Your task to perform on an android device: open app "File Manager" (install if not already installed) Image 0: 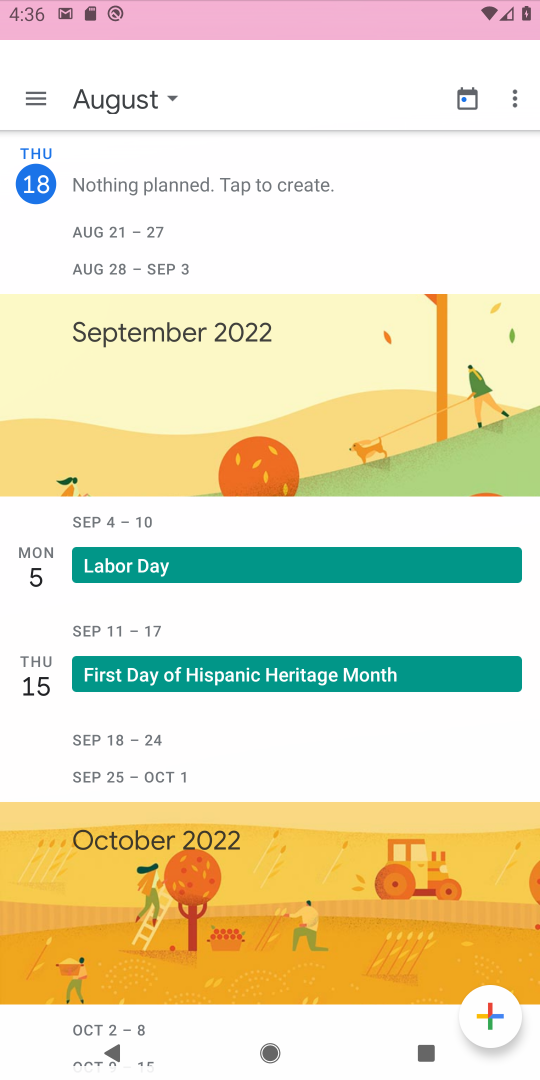
Step 0: press home button
Your task to perform on an android device: open app "File Manager" (install if not already installed) Image 1: 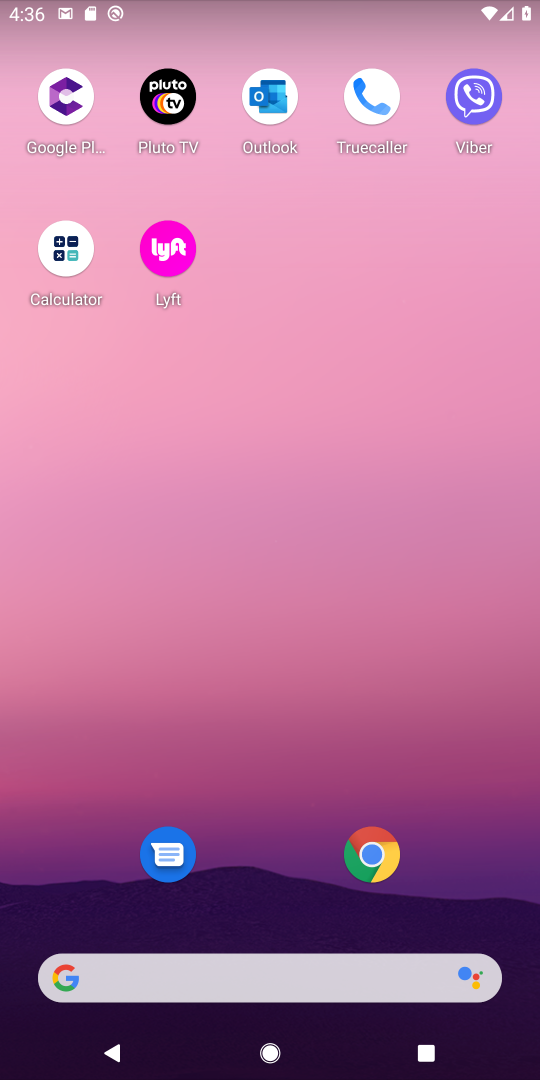
Step 1: drag from (266, 924) to (389, 18)
Your task to perform on an android device: open app "File Manager" (install if not already installed) Image 2: 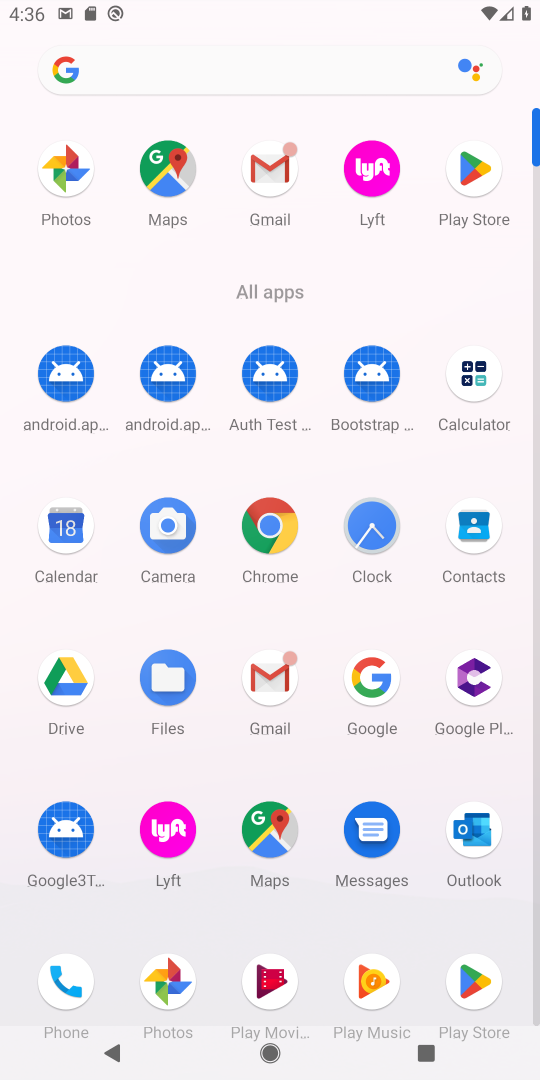
Step 2: click (460, 205)
Your task to perform on an android device: open app "File Manager" (install if not already installed) Image 3: 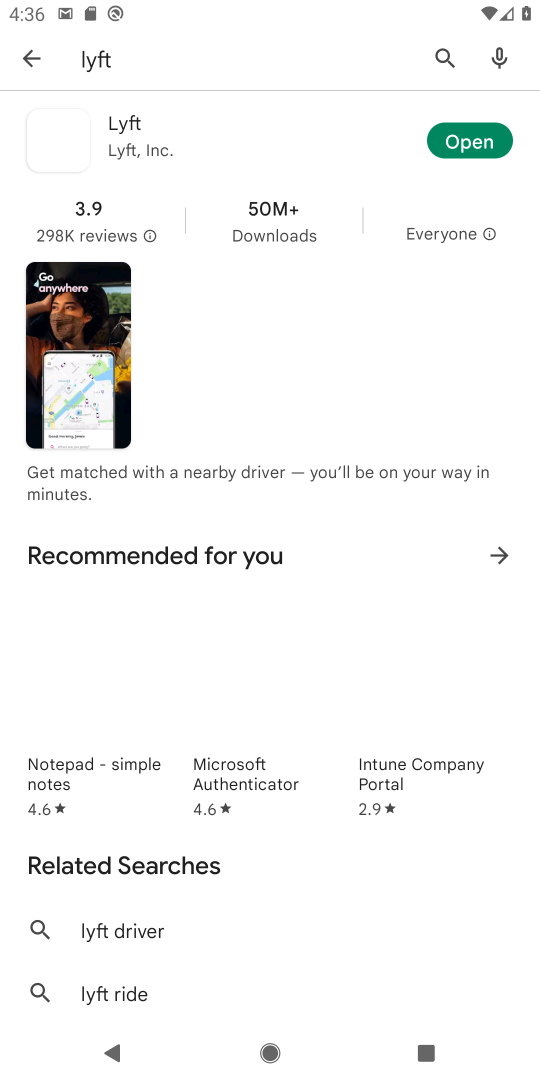
Step 3: click (34, 58)
Your task to perform on an android device: open app "File Manager" (install if not already installed) Image 4: 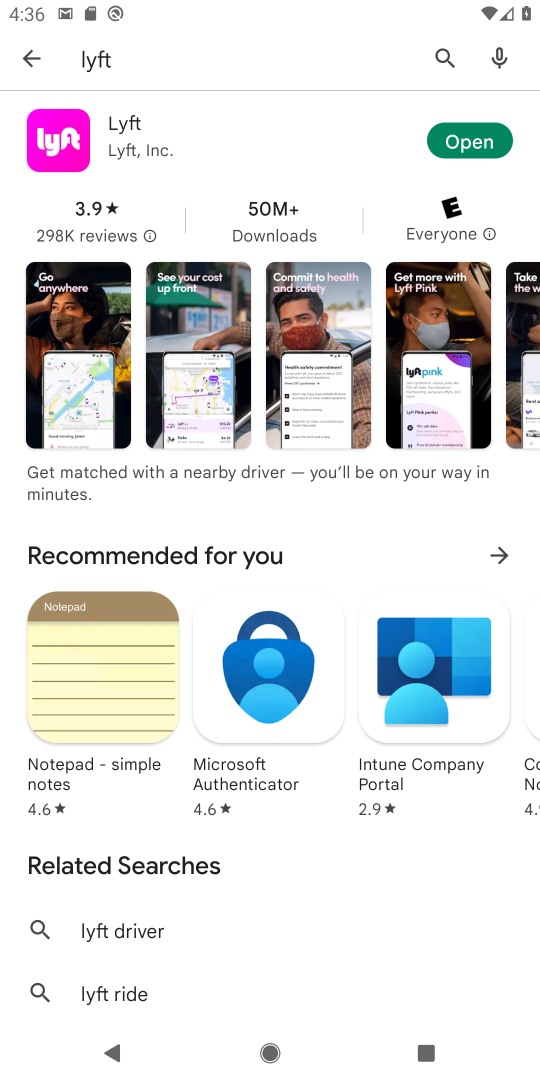
Step 4: click (29, 50)
Your task to perform on an android device: open app "File Manager" (install if not already installed) Image 5: 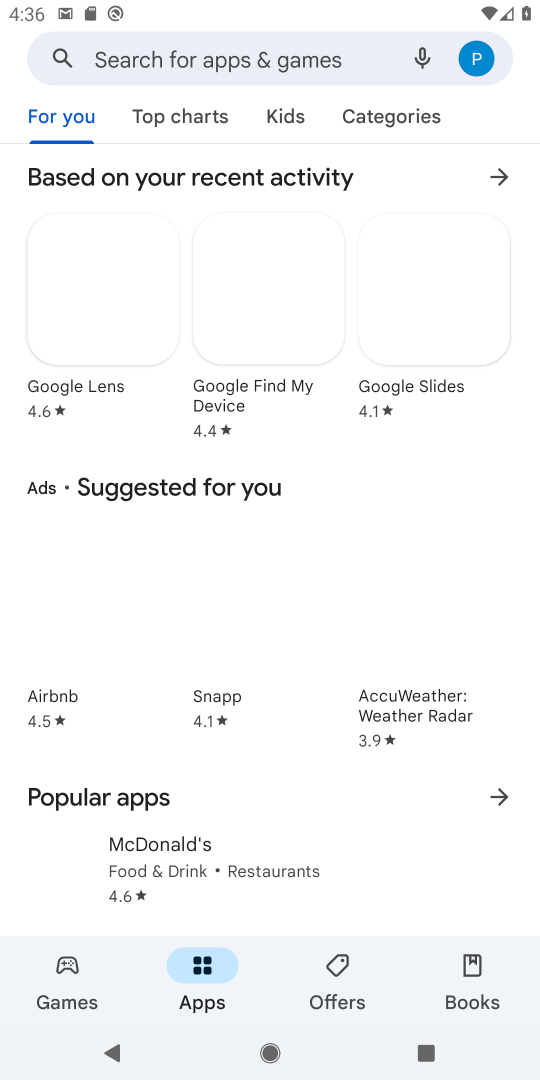
Step 5: click (192, 72)
Your task to perform on an android device: open app "File Manager" (install if not already installed) Image 6: 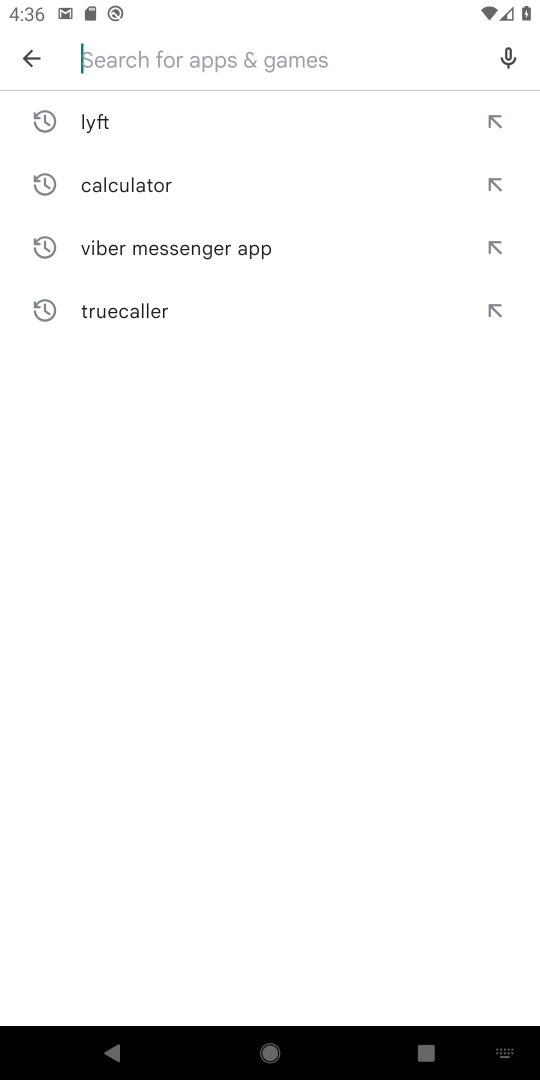
Step 6: type "File Manager"
Your task to perform on an android device: open app "File Manager" (install if not already installed) Image 7: 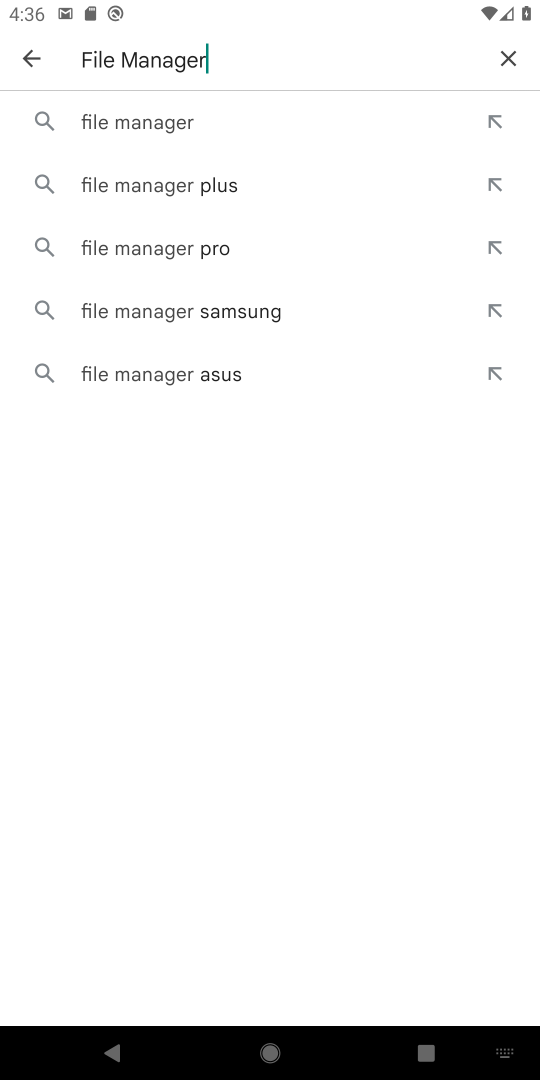
Step 7: click (96, 123)
Your task to perform on an android device: open app "File Manager" (install if not already installed) Image 8: 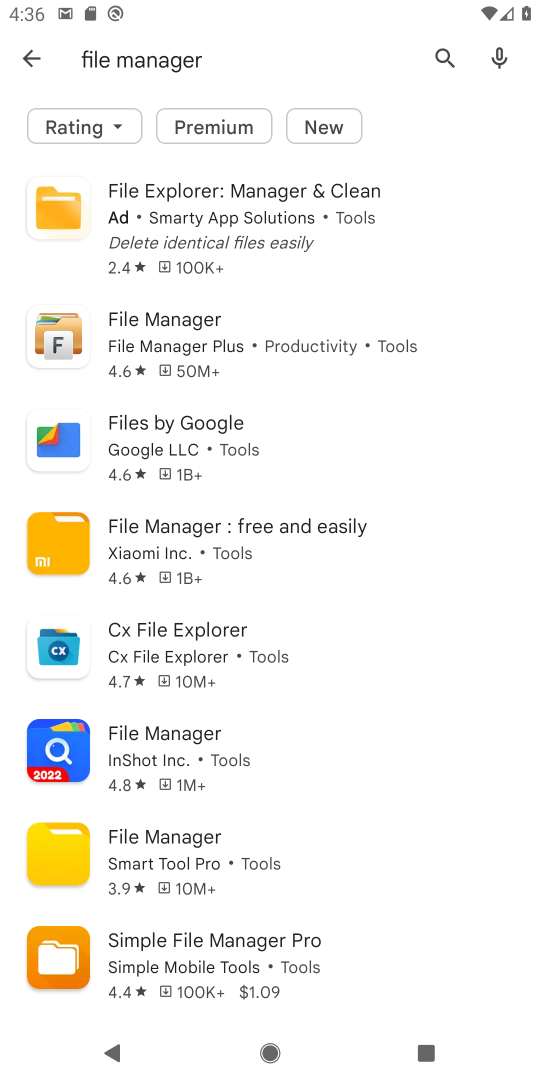
Step 8: click (180, 840)
Your task to perform on an android device: open app "File Manager" (install if not already installed) Image 9: 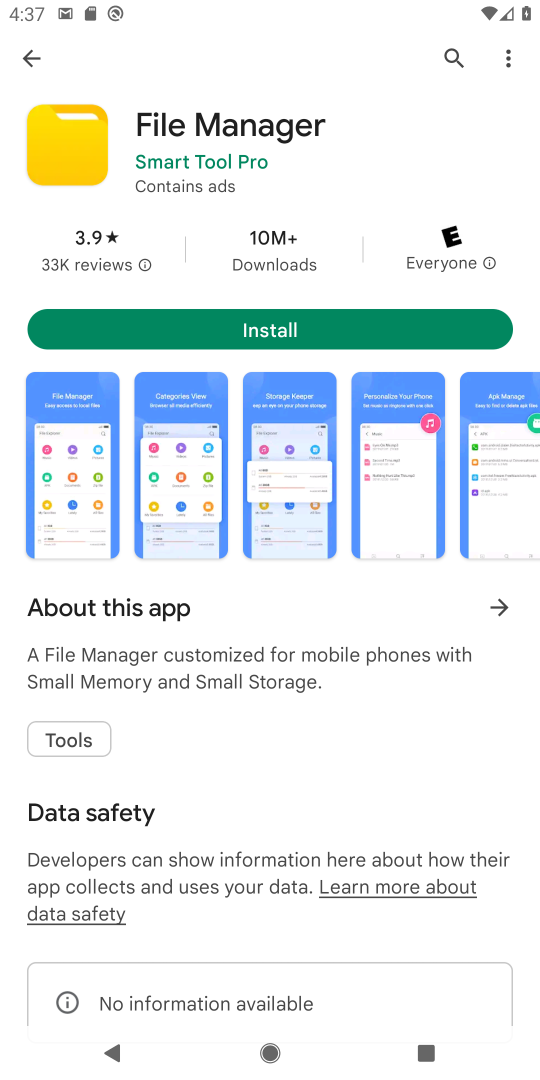
Step 9: click (255, 336)
Your task to perform on an android device: open app "File Manager" (install if not already installed) Image 10: 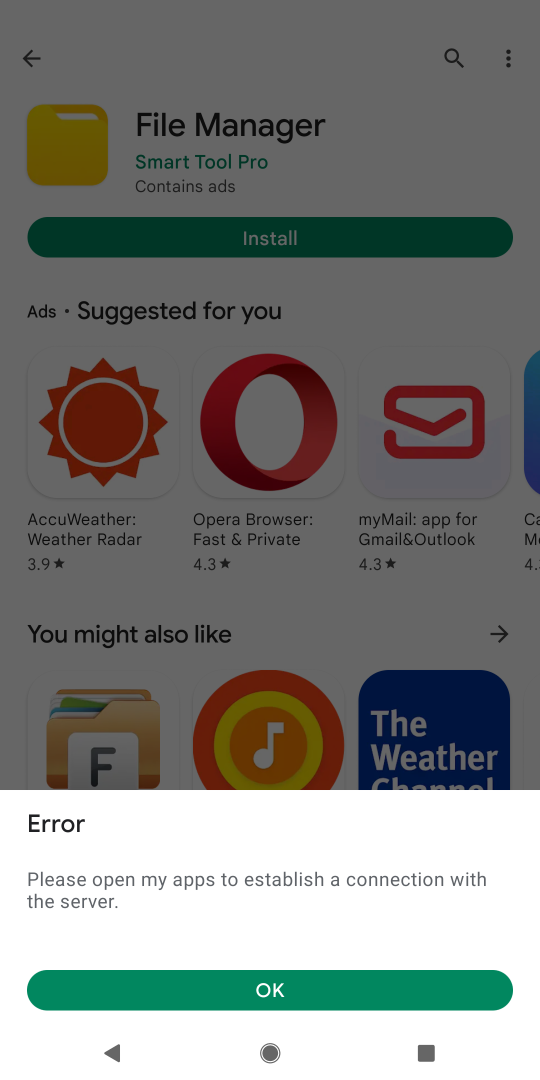
Step 10: click (265, 988)
Your task to perform on an android device: open app "File Manager" (install if not already installed) Image 11: 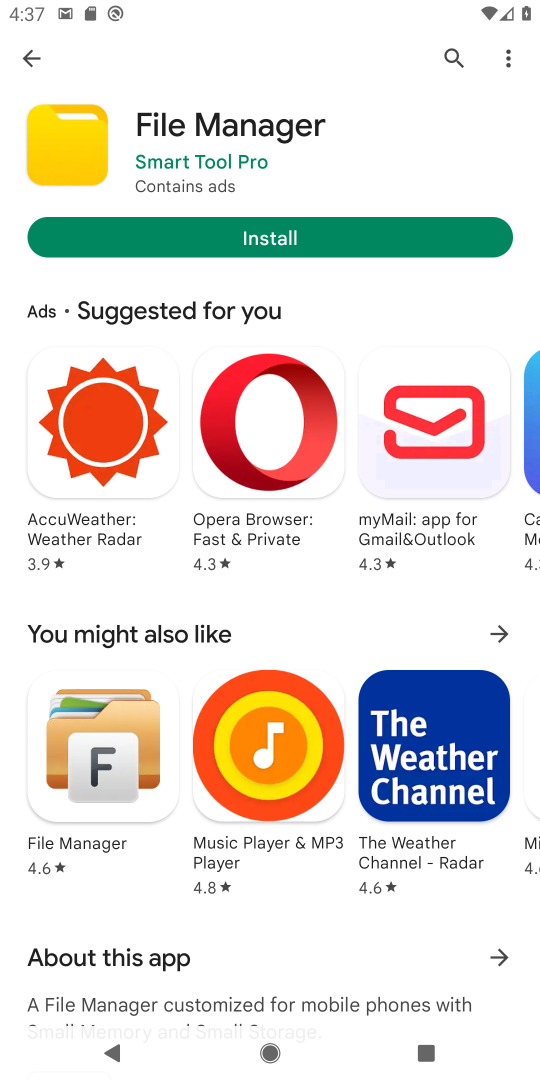
Step 11: task complete